Your task to perform on an android device: Open Maps and search for coffee Image 0: 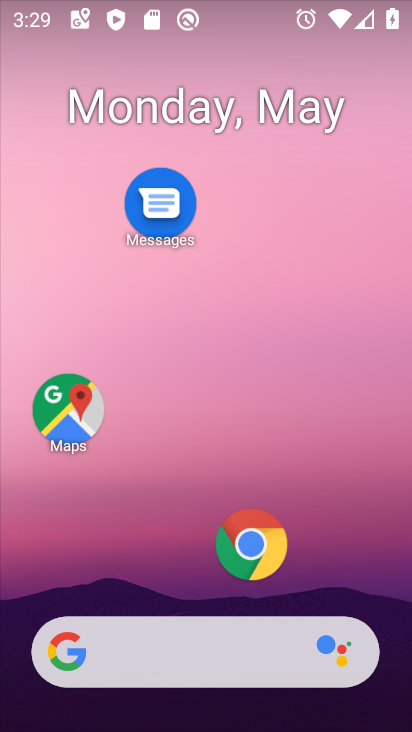
Step 0: click (80, 412)
Your task to perform on an android device: Open Maps and search for coffee Image 1: 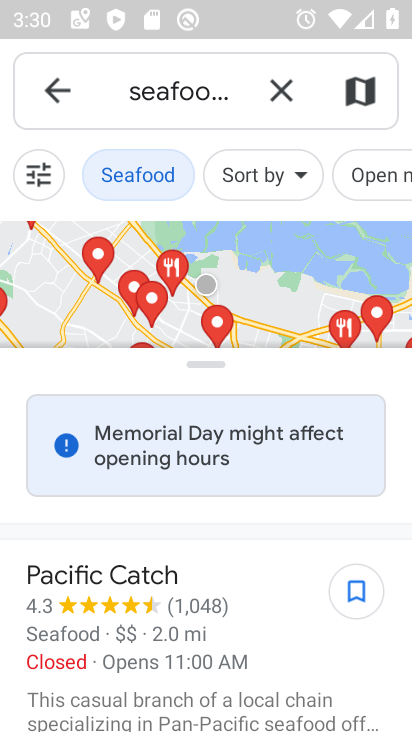
Step 1: click (280, 88)
Your task to perform on an android device: Open Maps and search for coffee Image 2: 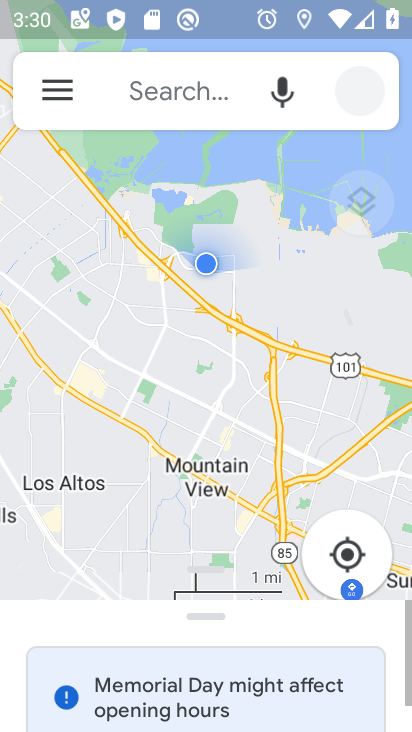
Step 2: click (198, 84)
Your task to perform on an android device: Open Maps and search for coffee Image 3: 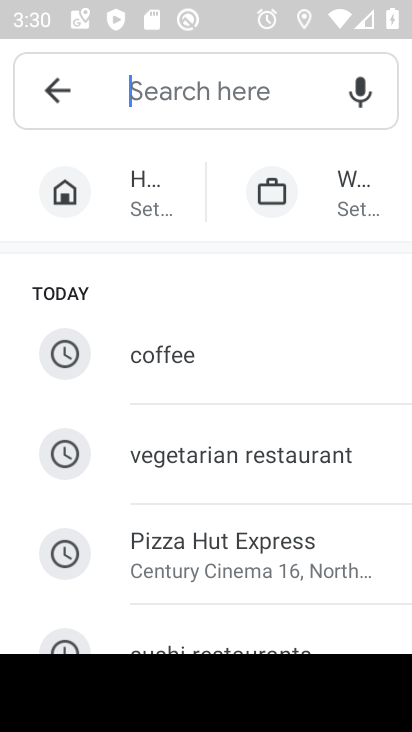
Step 3: click (186, 348)
Your task to perform on an android device: Open Maps and search for coffee Image 4: 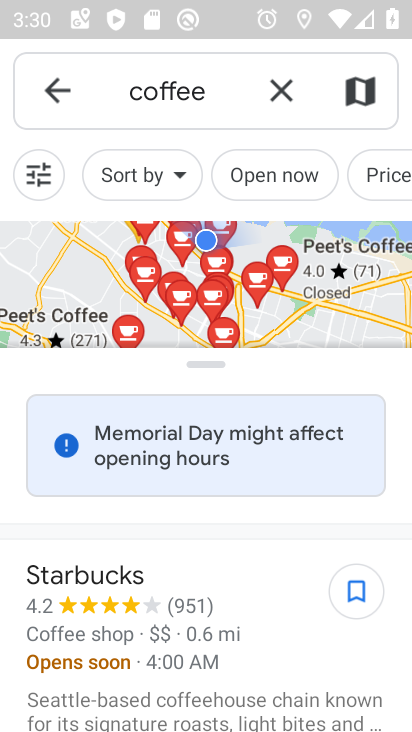
Step 4: task complete